Your task to perform on an android device: find snoozed emails in the gmail app Image 0: 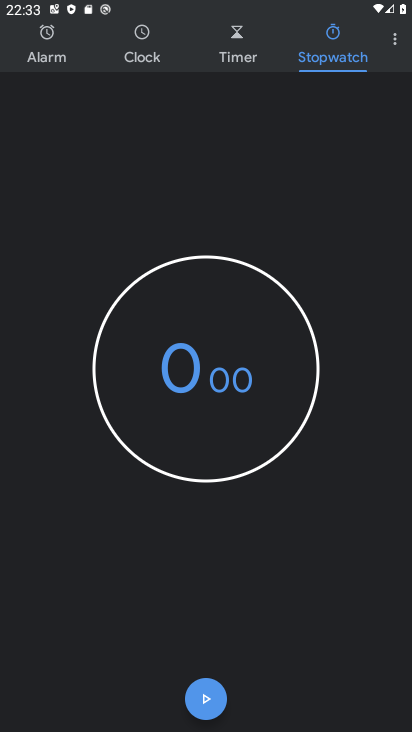
Step 0: press back button
Your task to perform on an android device: find snoozed emails in the gmail app Image 1: 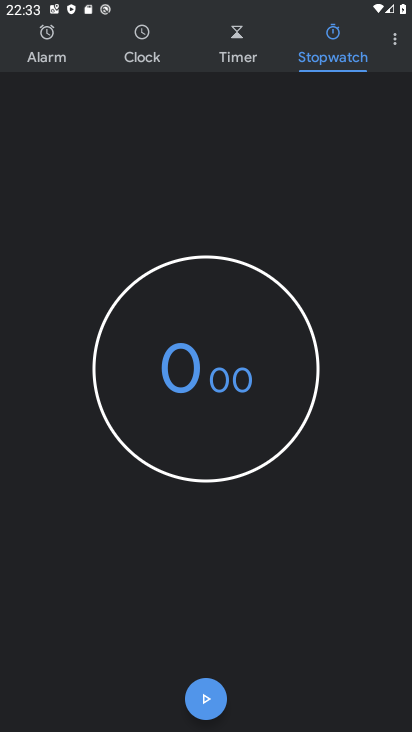
Step 1: press back button
Your task to perform on an android device: find snoozed emails in the gmail app Image 2: 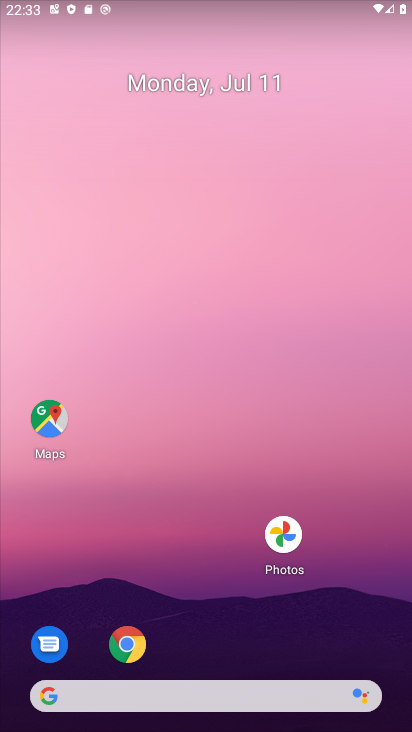
Step 2: press back button
Your task to perform on an android device: find snoozed emails in the gmail app Image 3: 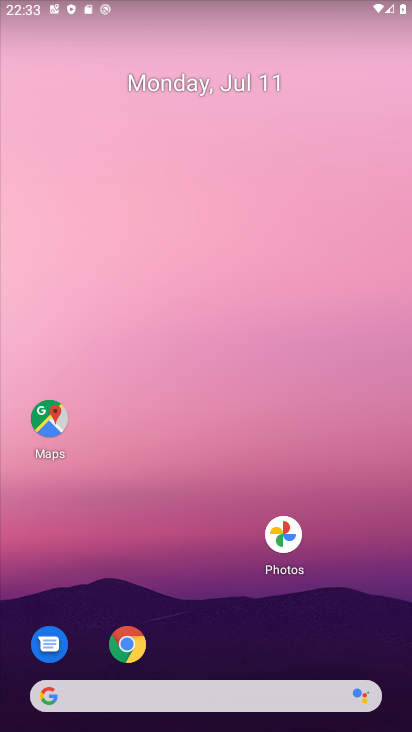
Step 3: drag from (186, 680) to (192, 109)
Your task to perform on an android device: find snoozed emails in the gmail app Image 4: 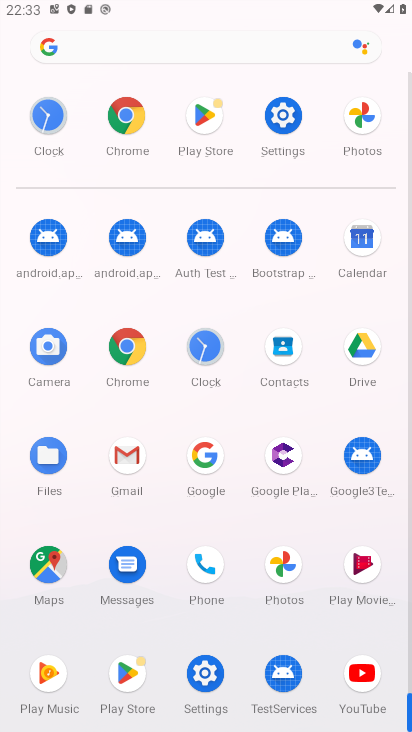
Step 4: click (125, 458)
Your task to perform on an android device: find snoozed emails in the gmail app Image 5: 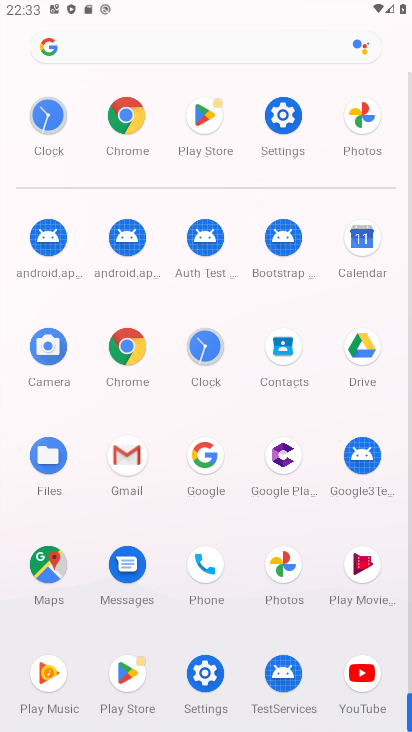
Step 5: click (123, 458)
Your task to perform on an android device: find snoozed emails in the gmail app Image 6: 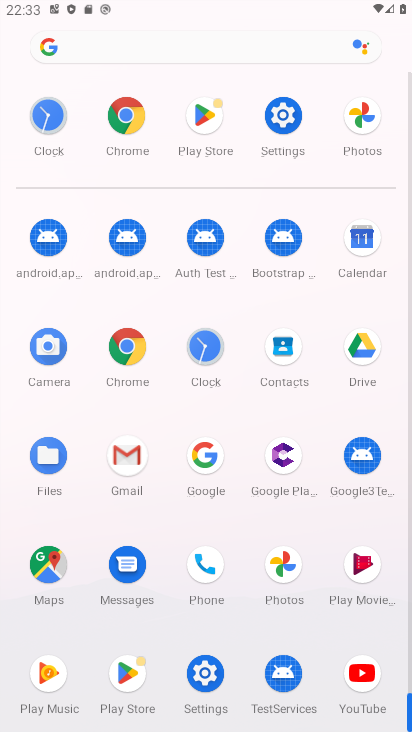
Step 6: click (123, 458)
Your task to perform on an android device: find snoozed emails in the gmail app Image 7: 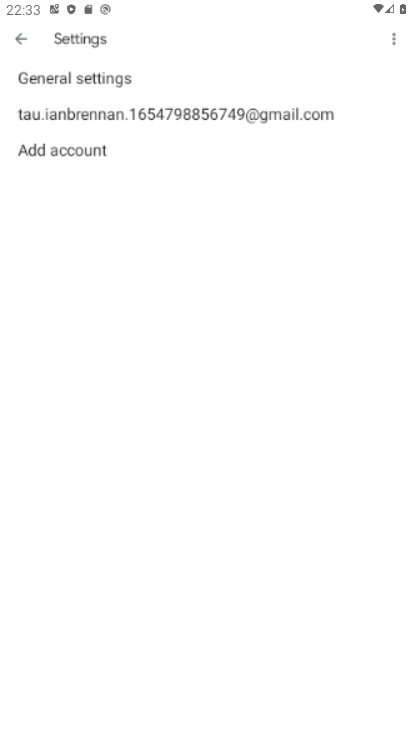
Step 7: click (123, 458)
Your task to perform on an android device: find snoozed emails in the gmail app Image 8: 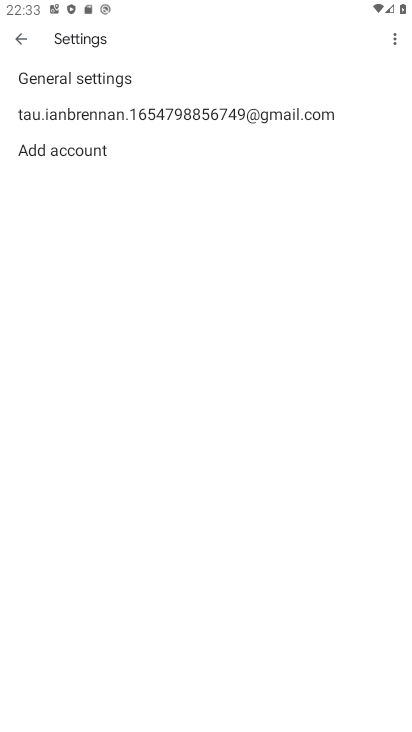
Step 8: click (116, 112)
Your task to perform on an android device: find snoozed emails in the gmail app Image 9: 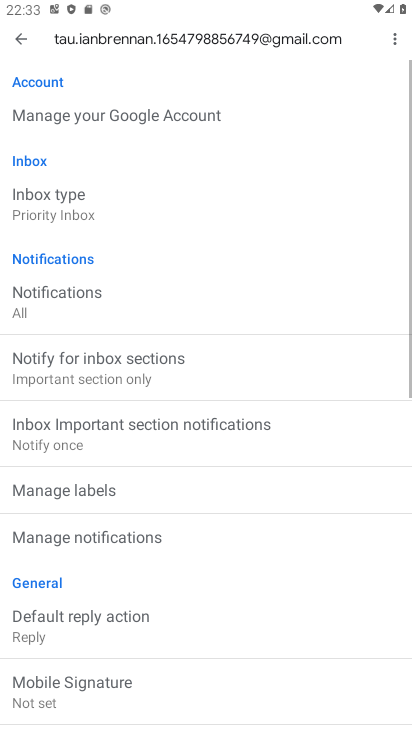
Step 9: click (22, 45)
Your task to perform on an android device: find snoozed emails in the gmail app Image 10: 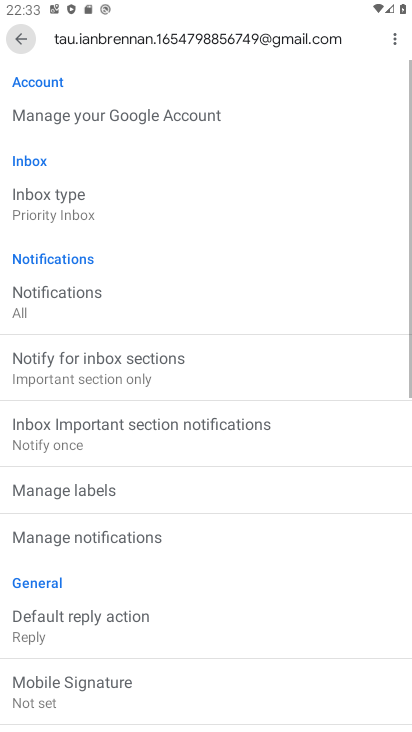
Step 10: click (21, 40)
Your task to perform on an android device: find snoozed emails in the gmail app Image 11: 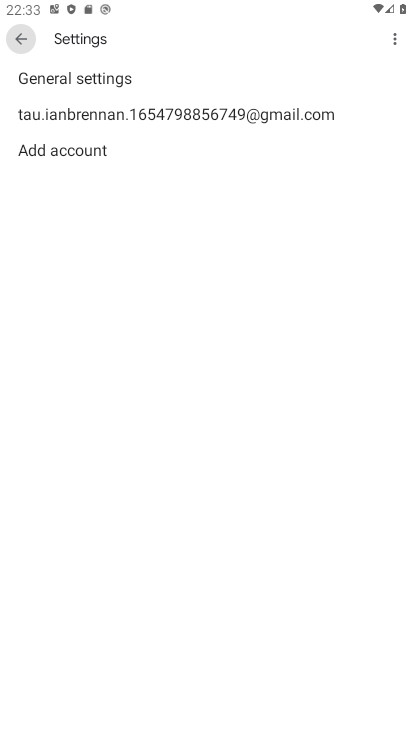
Step 11: click (21, 39)
Your task to perform on an android device: find snoozed emails in the gmail app Image 12: 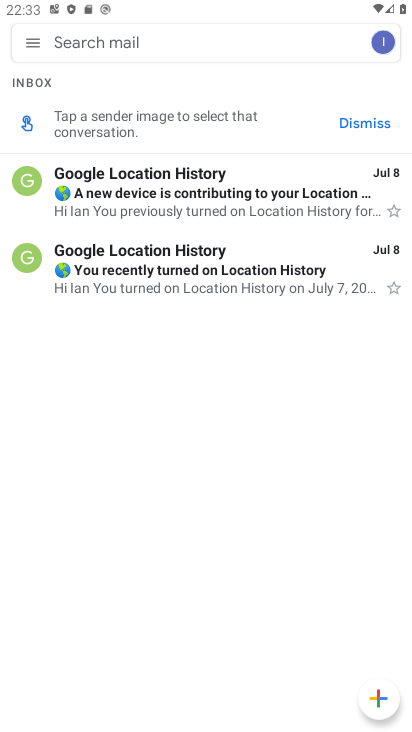
Step 12: click (27, 40)
Your task to perform on an android device: find snoozed emails in the gmail app Image 13: 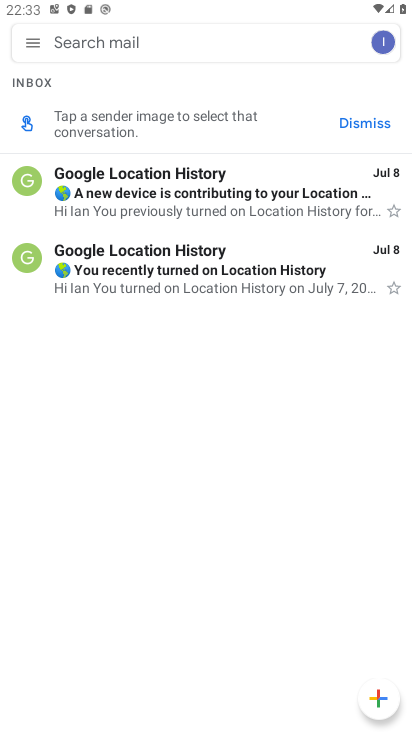
Step 13: press back button
Your task to perform on an android device: find snoozed emails in the gmail app Image 14: 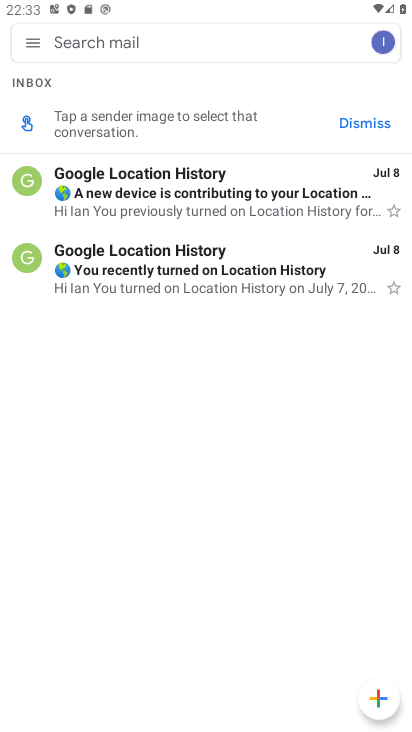
Step 14: press back button
Your task to perform on an android device: find snoozed emails in the gmail app Image 15: 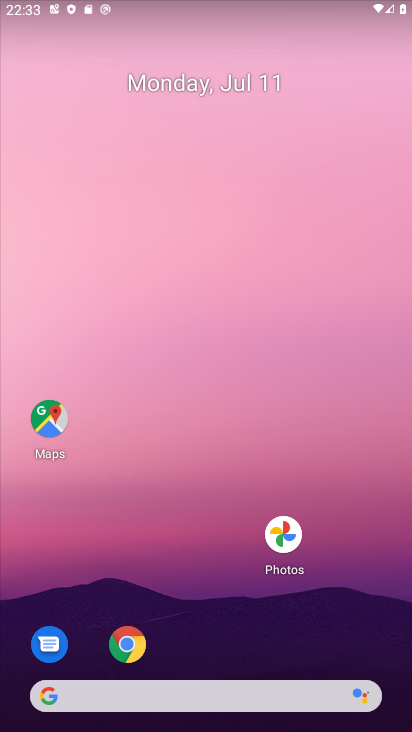
Step 15: drag from (205, 567) to (146, 157)
Your task to perform on an android device: find snoozed emails in the gmail app Image 16: 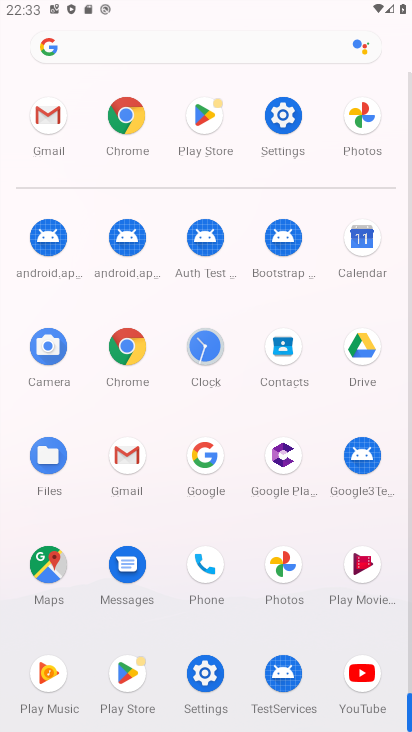
Step 16: click (118, 461)
Your task to perform on an android device: find snoozed emails in the gmail app Image 17: 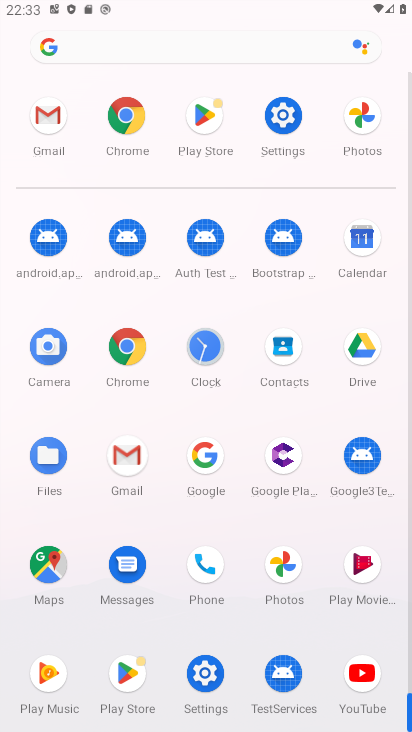
Step 17: click (128, 449)
Your task to perform on an android device: find snoozed emails in the gmail app Image 18: 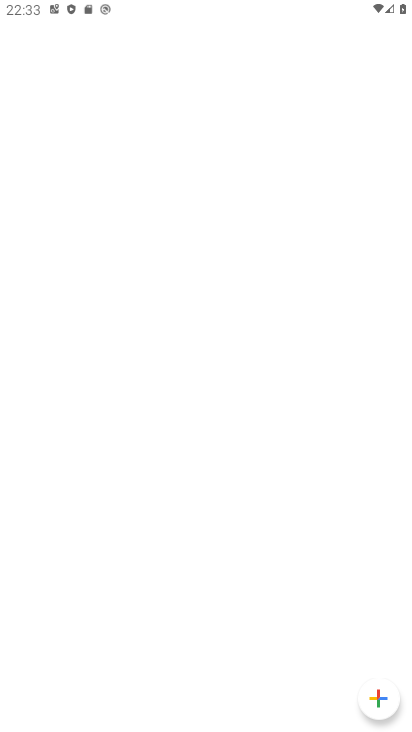
Step 18: click (128, 449)
Your task to perform on an android device: find snoozed emails in the gmail app Image 19: 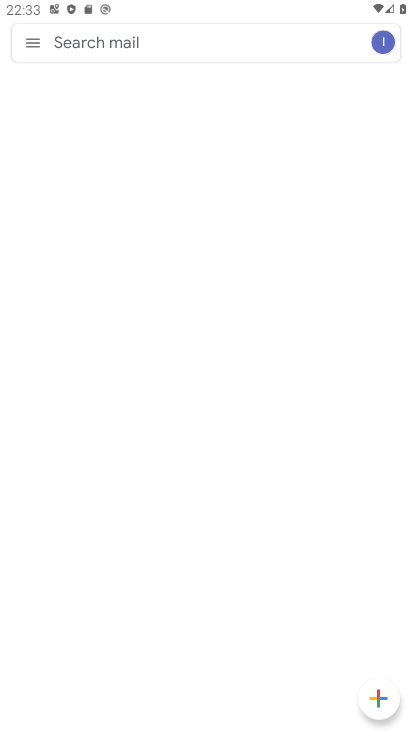
Step 19: click (128, 449)
Your task to perform on an android device: find snoozed emails in the gmail app Image 20: 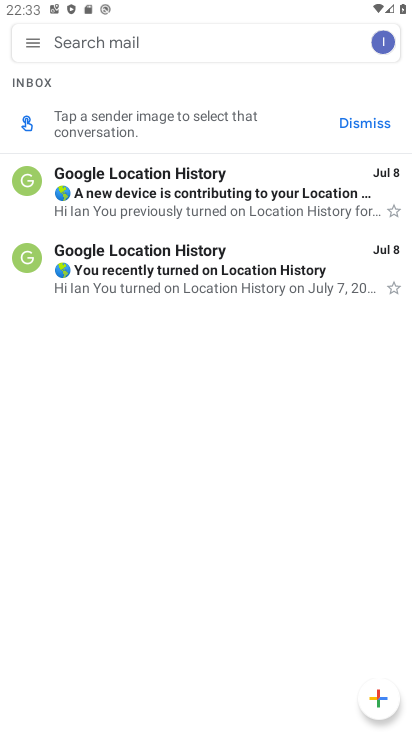
Step 20: click (24, 36)
Your task to perform on an android device: find snoozed emails in the gmail app Image 21: 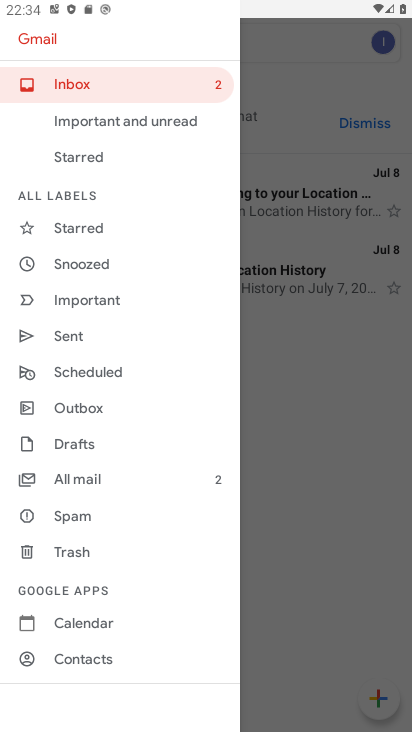
Step 21: click (82, 251)
Your task to perform on an android device: find snoozed emails in the gmail app Image 22: 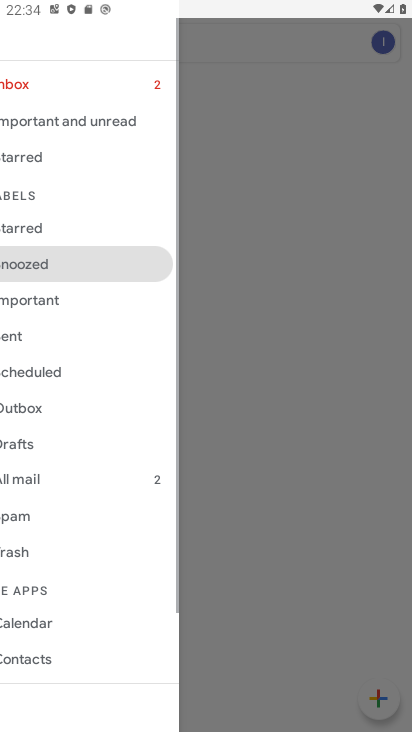
Step 22: click (82, 254)
Your task to perform on an android device: find snoozed emails in the gmail app Image 23: 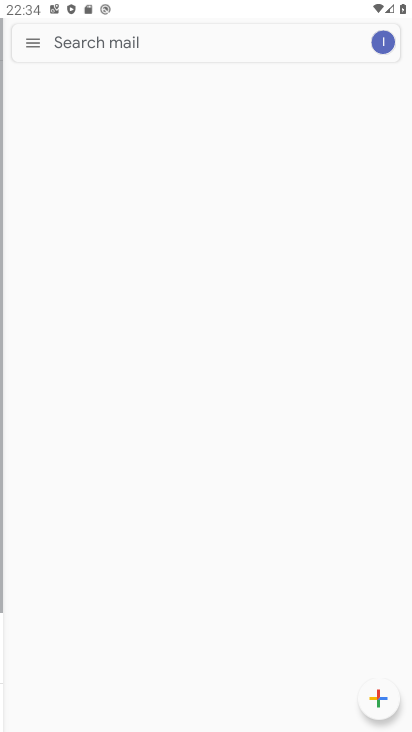
Step 23: click (82, 255)
Your task to perform on an android device: find snoozed emails in the gmail app Image 24: 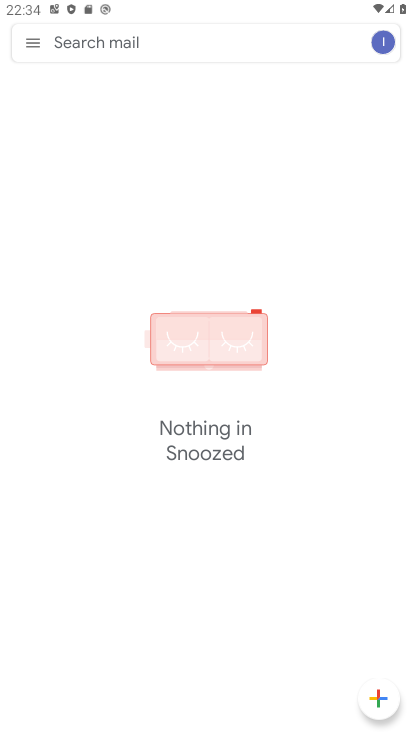
Step 24: task complete